Your task to perform on an android device: Open Android settings Image 0: 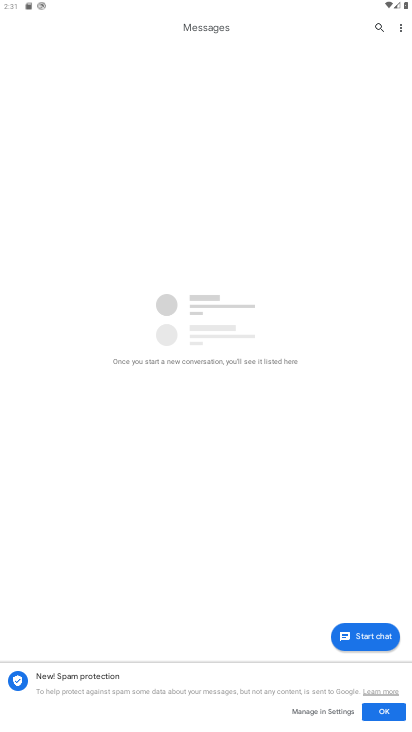
Step 0: press home button
Your task to perform on an android device: Open Android settings Image 1: 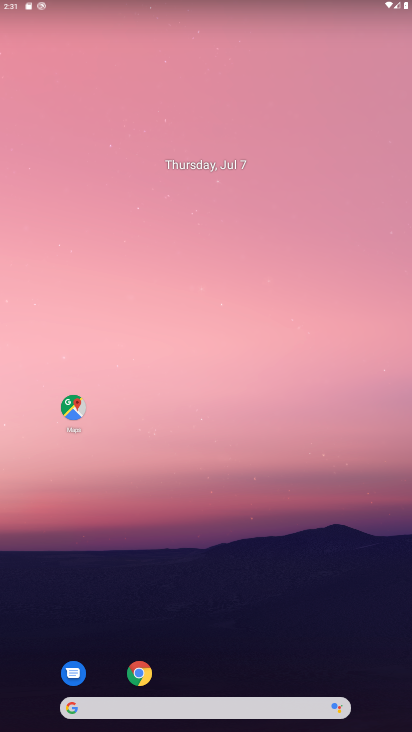
Step 1: drag from (231, 642) to (226, 55)
Your task to perform on an android device: Open Android settings Image 2: 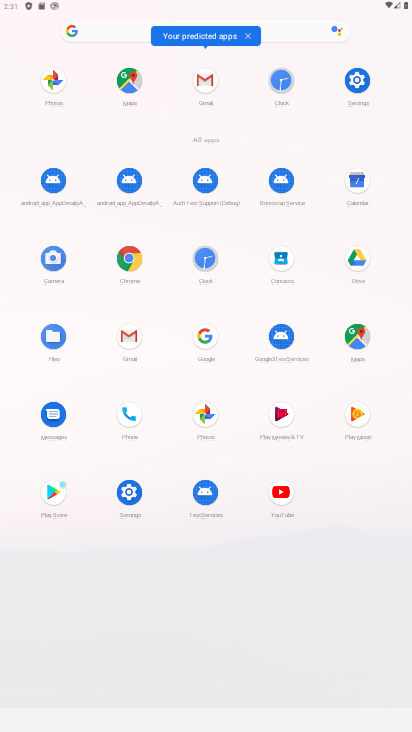
Step 2: click (131, 505)
Your task to perform on an android device: Open Android settings Image 3: 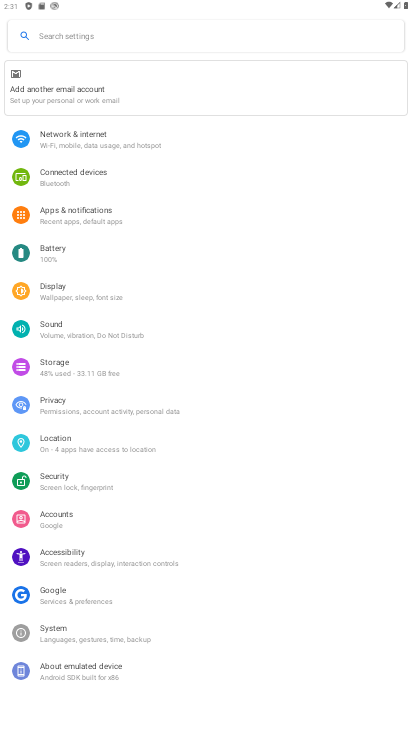
Step 3: drag from (112, 561) to (194, 153)
Your task to perform on an android device: Open Android settings Image 4: 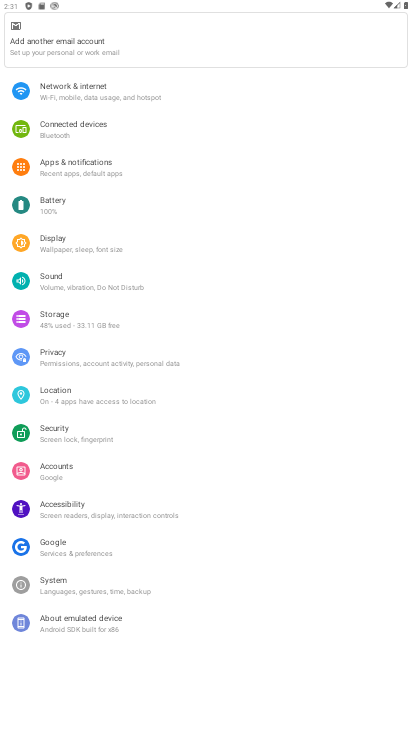
Step 4: click (105, 628)
Your task to perform on an android device: Open Android settings Image 5: 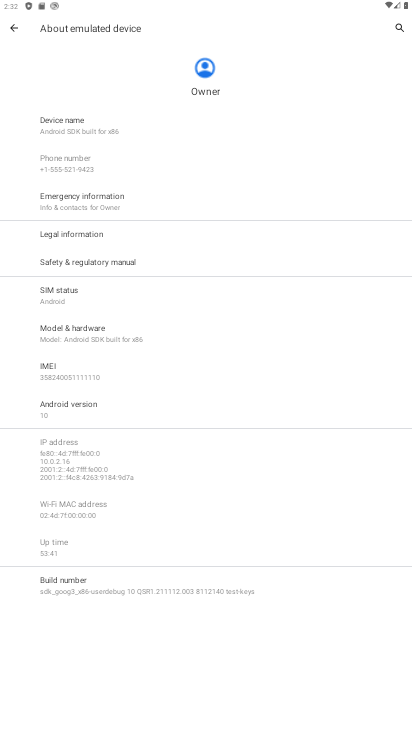
Step 5: click (83, 412)
Your task to perform on an android device: Open Android settings Image 6: 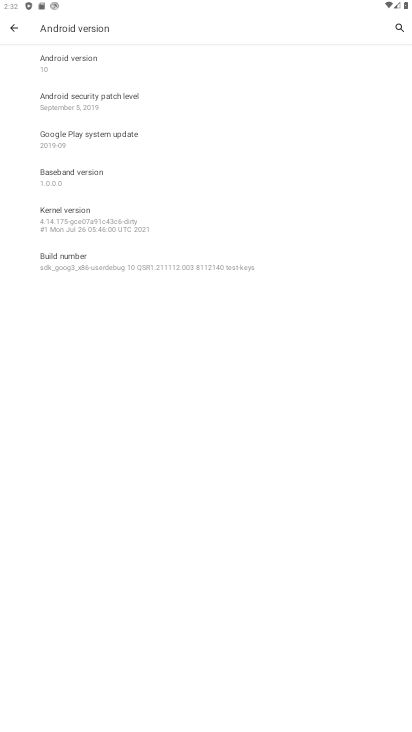
Step 6: task complete